Your task to perform on an android device: turn on wifi Image 0: 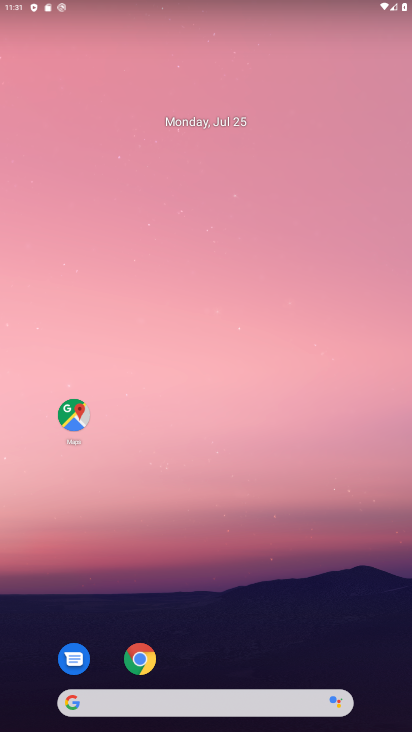
Step 0: click (199, 281)
Your task to perform on an android device: turn on wifi Image 1: 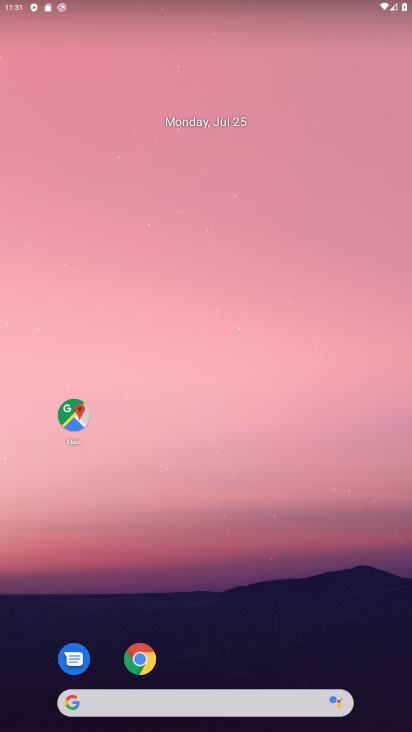
Step 1: drag from (185, 650) to (254, 29)
Your task to perform on an android device: turn on wifi Image 2: 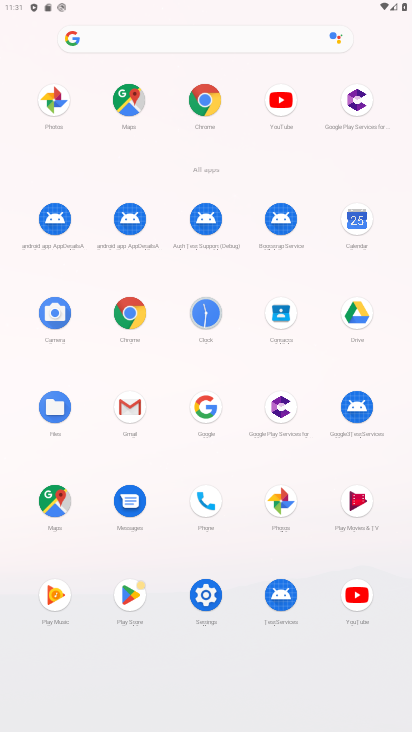
Step 2: click (202, 598)
Your task to perform on an android device: turn on wifi Image 3: 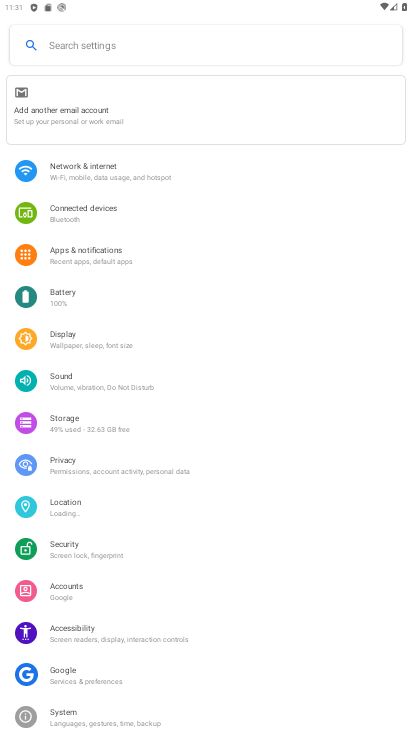
Step 3: click (100, 169)
Your task to perform on an android device: turn on wifi Image 4: 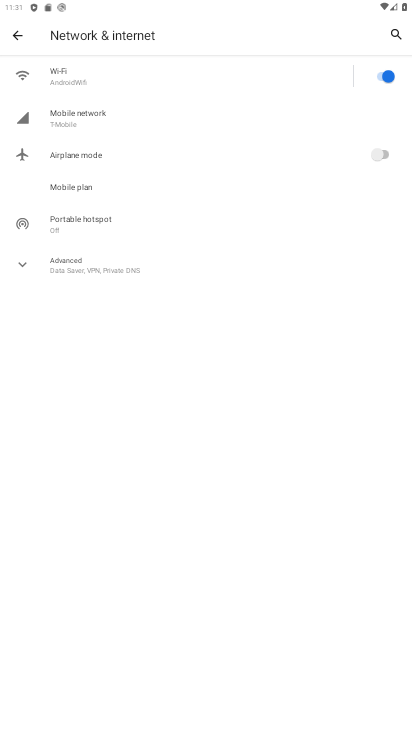
Step 4: task complete